Your task to perform on an android device: Go to Wikipedia Image 0: 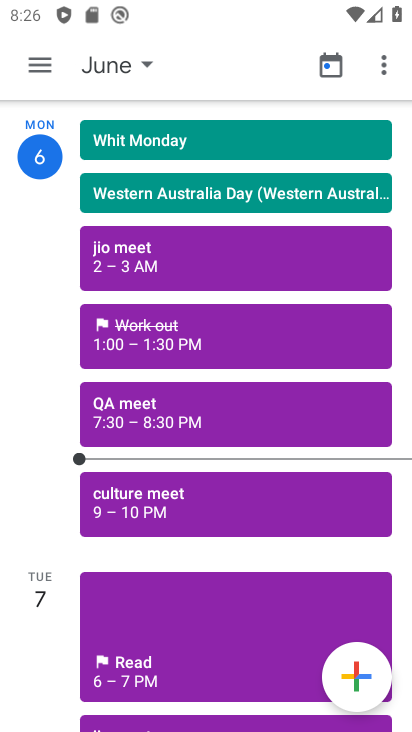
Step 0: press home button
Your task to perform on an android device: Go to Wikipedia Image 1: 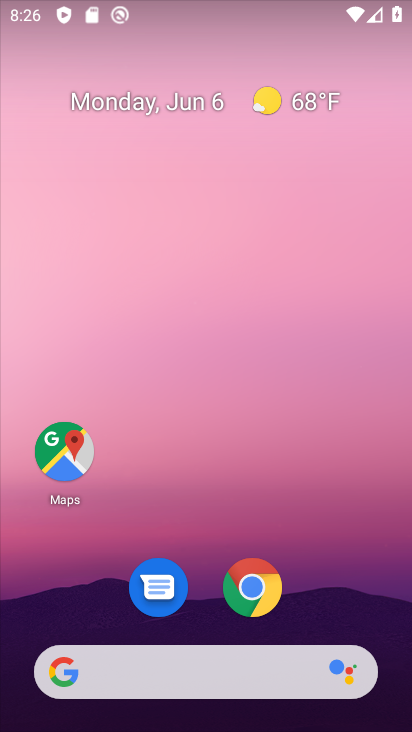
Step 1: click (261, 602)
Your task to perform on an android device: Go to Wikipedia Image 2: 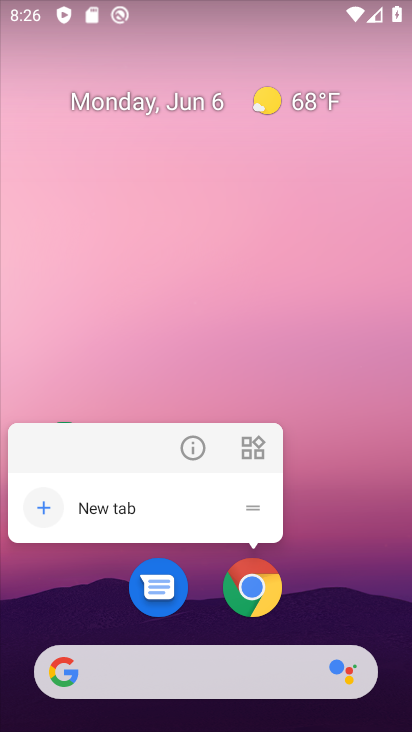
Step 2: click (261, 602)
Your task to perform on an android device: Go to Wikipedia Image 3: 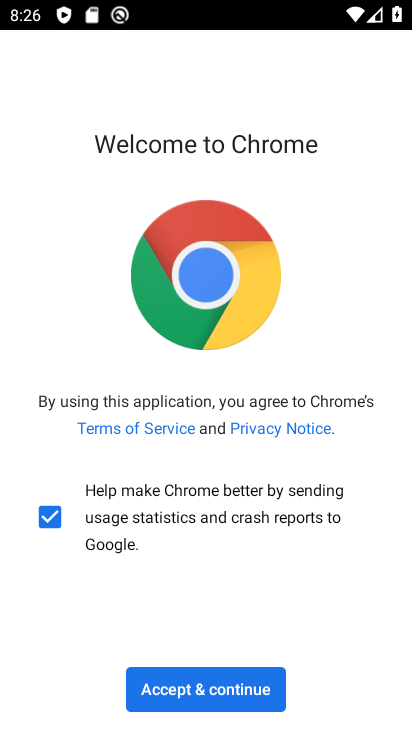
Step 3: click (228, 697)
Your task to perform on an android device: Go to Wikipedia Image 4: 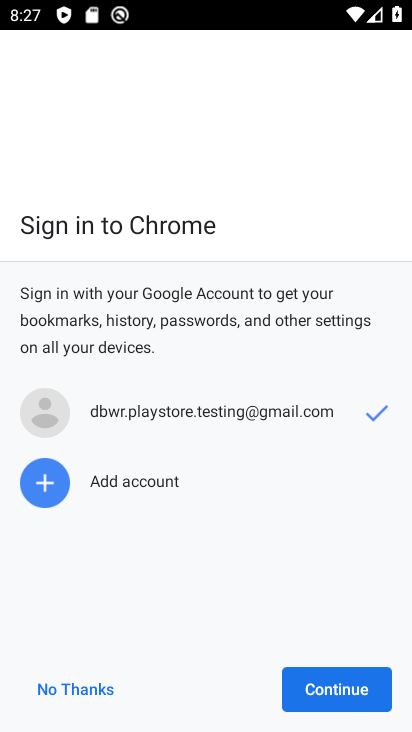
Step 4: click (319, 686)
Your task to perform on an android device: Go to Wikipedia Image 5: 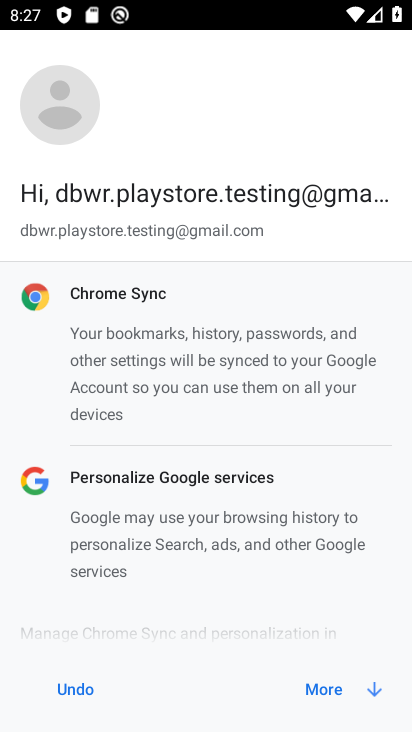
Step 5: click (312, 691)
Your task to perform on an android device: Go to Wikipedia Image 6: 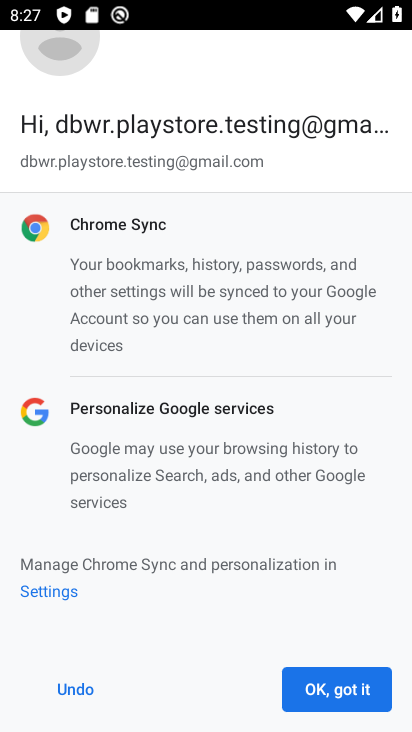
Step 6: click (310, 679)
Your task to perform on an android device: Go to Wikipedia Image 7: 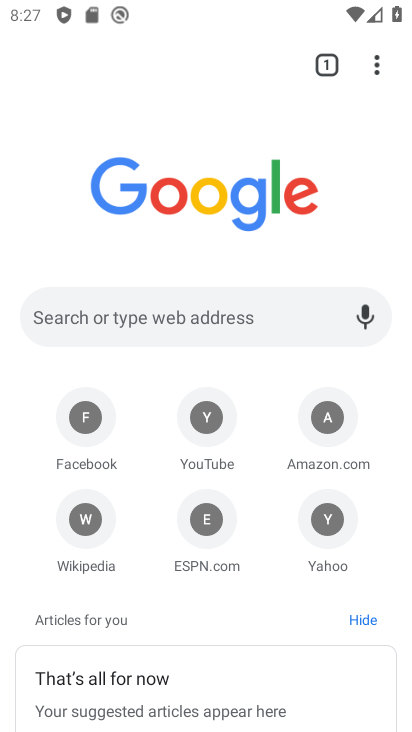
Step 7: click (80, 520)
Your task to perform on an android device: Go to Wikipedia Image 8: 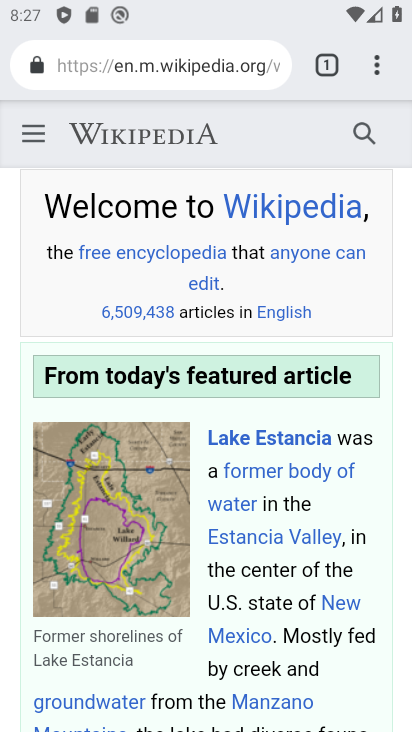
Step 8: task complete